Your task to perform on an android device: What's the weather going to be this weekend? Image 0: 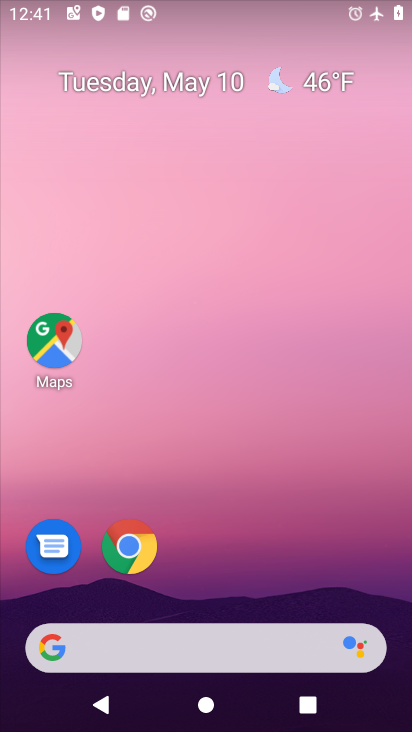
Step 0: click (326, 91)
Your task to perform on an android device: What's the weather going to be this weekend? Image 1: 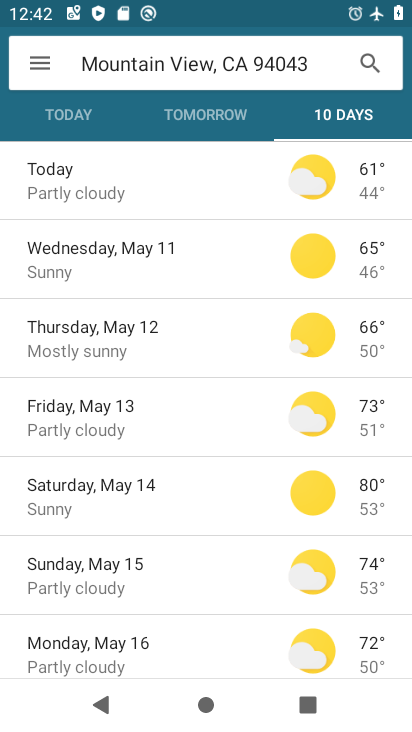
Step 1: task complete